Your task to perform on an android device: empty trash in the gmail app Image 0: 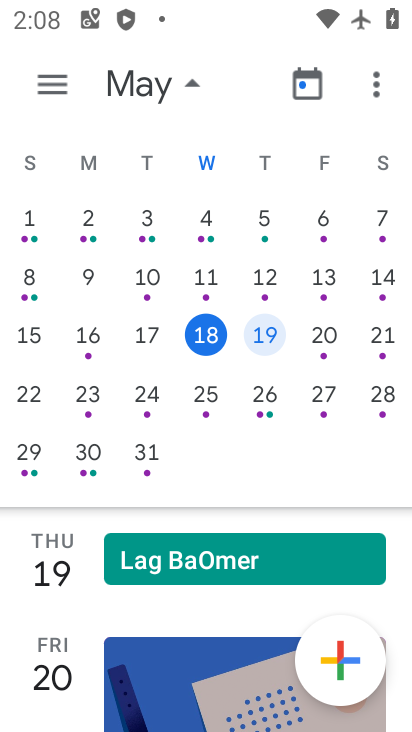
Step 0: press home button
Your task to perform on an android device: empty trash in the gmail app Image 1: 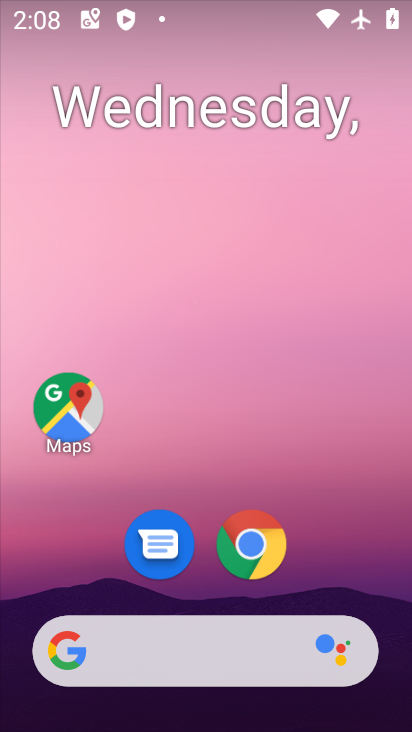
Step 1: drag from (370, 566) to (349, 219)
Your task to perform on an android device: empty trash in the gmail app Image 2: 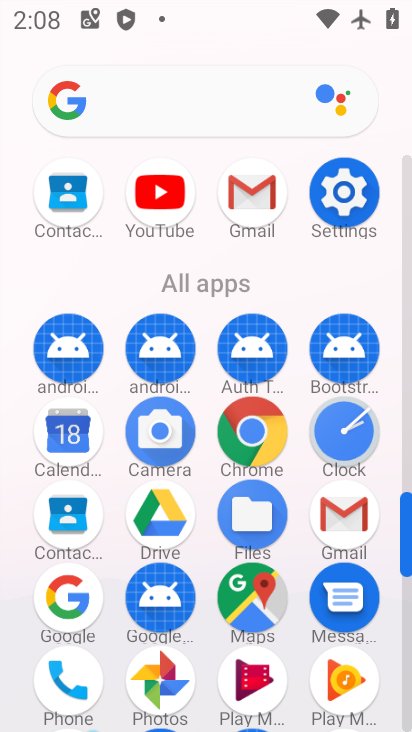
Step 2: click (242, 177)
Your task to perform on an android device: empty trash in the gmail app Image 3: 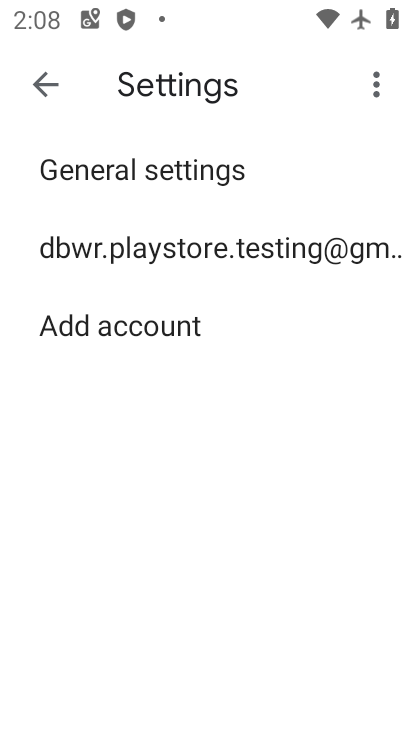
Step 3: click (32, 97)
Your task to perform on an android device: empty trash in the gmail app Image 4: 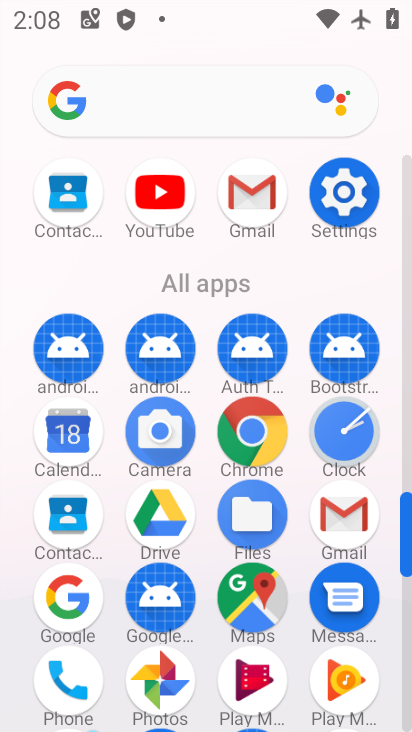
Step 4: click (240, 216)
Your task to perform on an android device: empty trash in the gmail app Image 5: 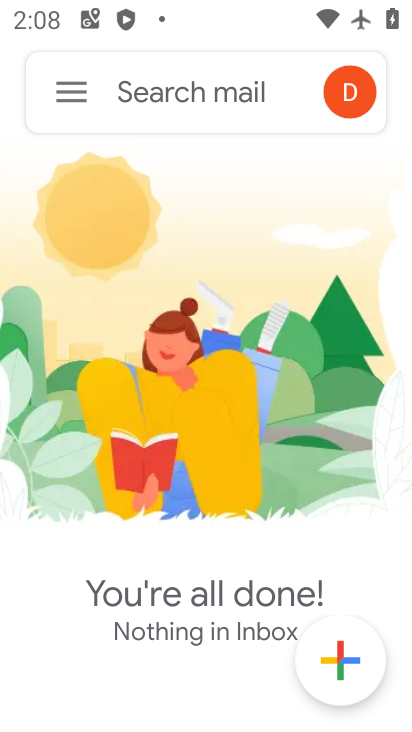
Step 5: click (65, 116)
Your task to perform on an android device: empty trash in the gmail app Image 6: 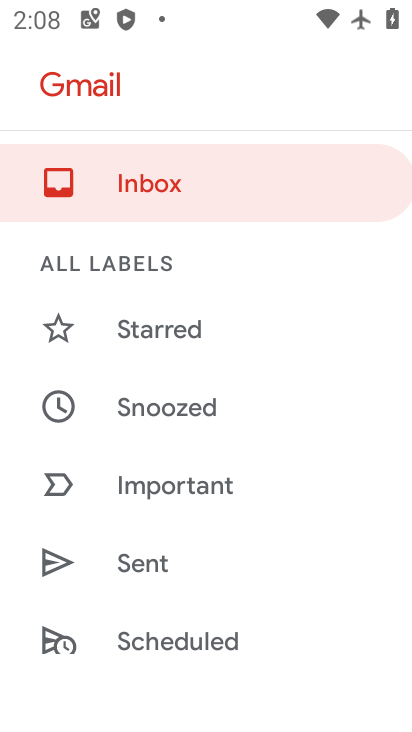
Step 6: drag from (84, 557) to (93, 373)
Your task to perform on an android device: empty trash in the gmail app Image 7: 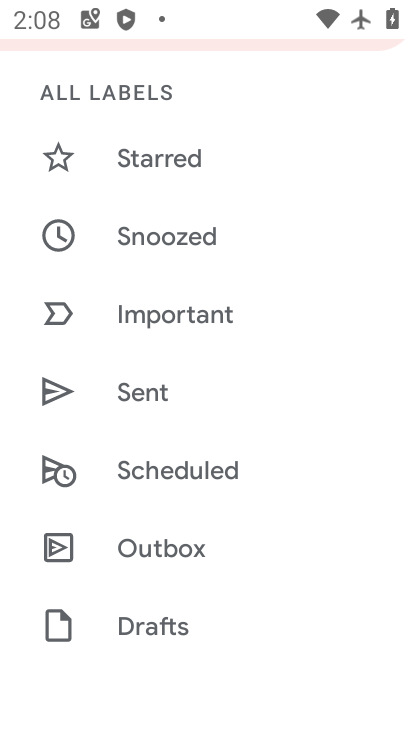
Step 7: drag from (119, 669) to (158, 403)
Your task to perform on an android device: empty trash in the gmail app Image 8: 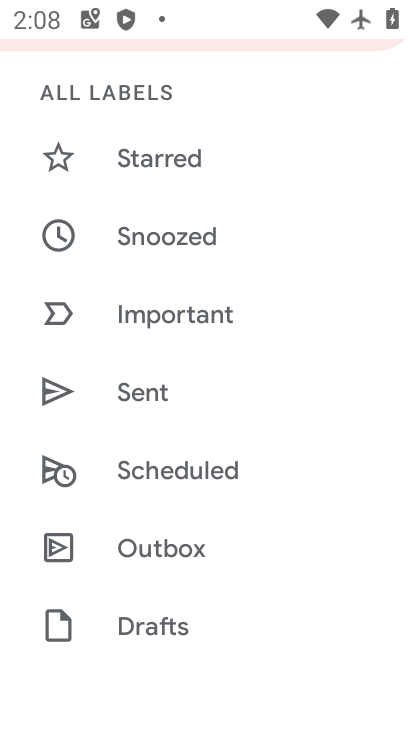
Step 8: drag from (143, 607) to (170, 394)
Your task to perform on an android device: empty trash in the gmail app Image 9: 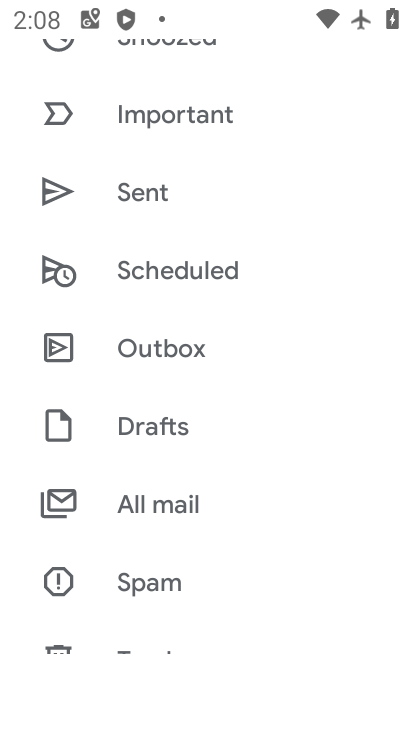
Step 9: drag from (143, 606) to (171, 274)
Your task to perform on an android device: empty trash in the gmail app Image 10: 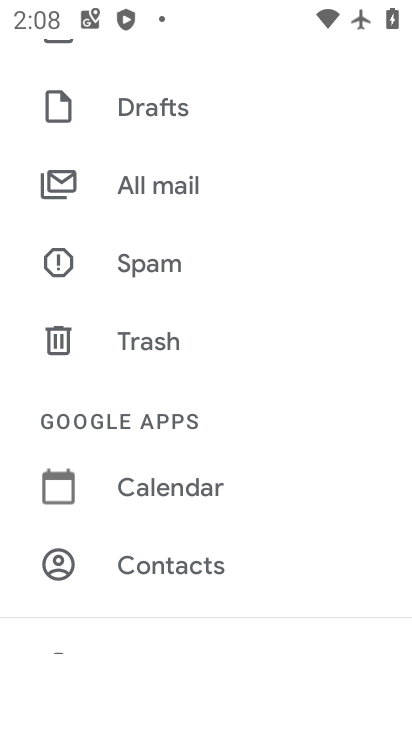
Step 10: drag from (170, 585) to (213, 303)
Your task to perform on an android device: empty trash in the gmail app Image 11: 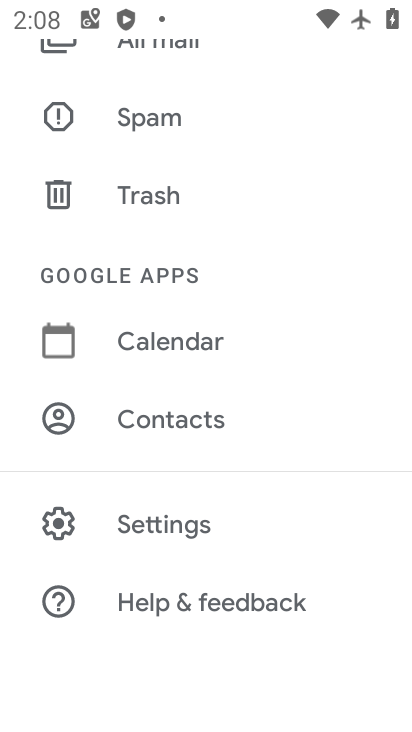
Step 11: click (195, 511)
Your task to perform on an android device: empty trash in the gmail app Image 12: 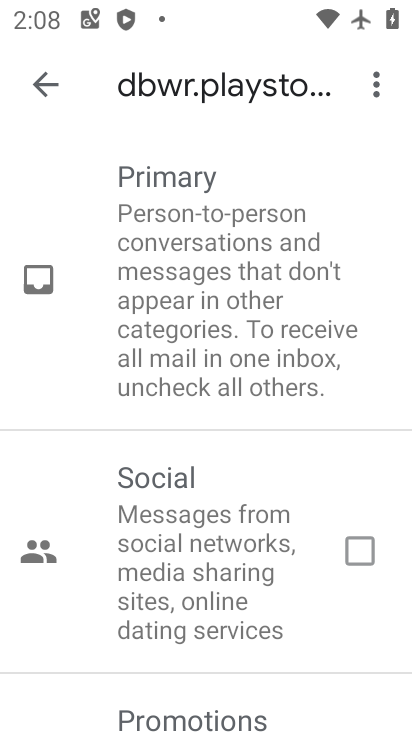
Step 12: click (58, 91)
Your task to perform on an android device: empty trash in the gmail app Image 13: 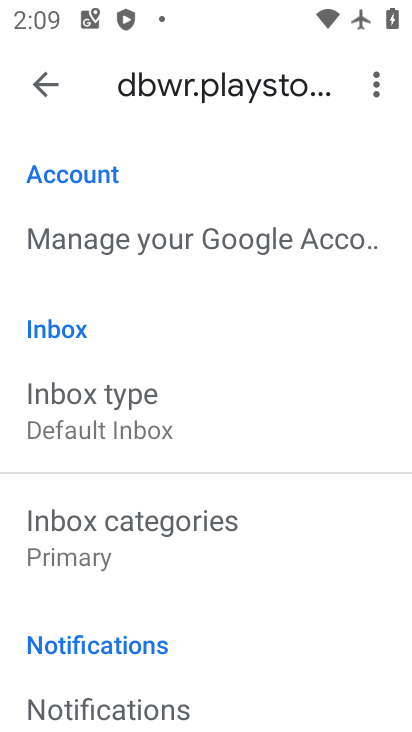
Step 13: click (58, 91)
Your task to perform on an android device: empty trash in the gmail app Image 14: 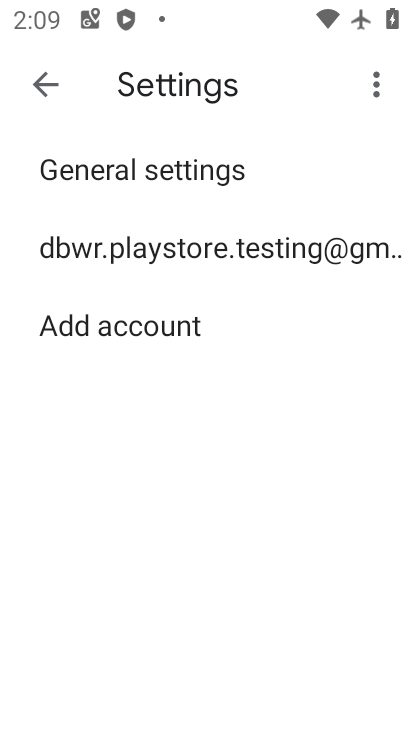
Step 14: click (29, 72)
Your task to perform on an android device: empty trash in the gmail app Image 15: 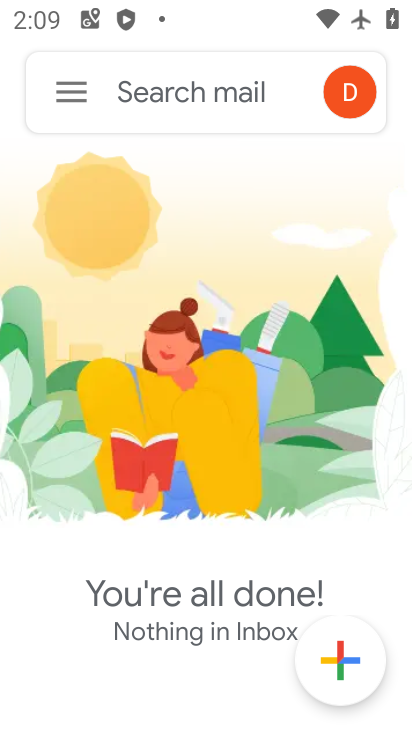
Step 15: click (60, 86)
Your task to perform on an android device: empty trash in the gmail app Image 16: 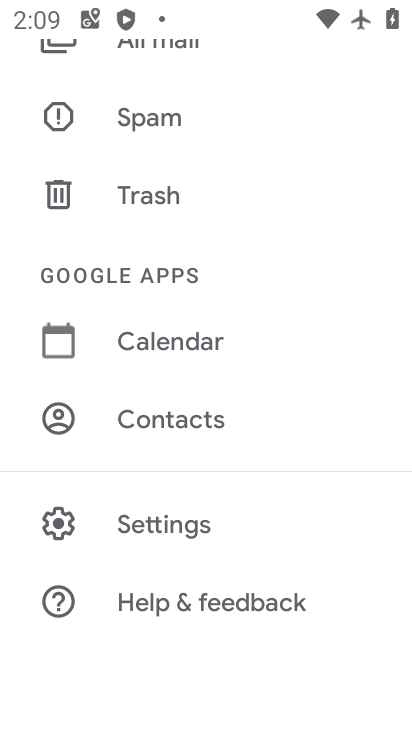
Step 16: click (119, 201)
Your task to perform on an android device: empty trash in the gmail app Image 17: 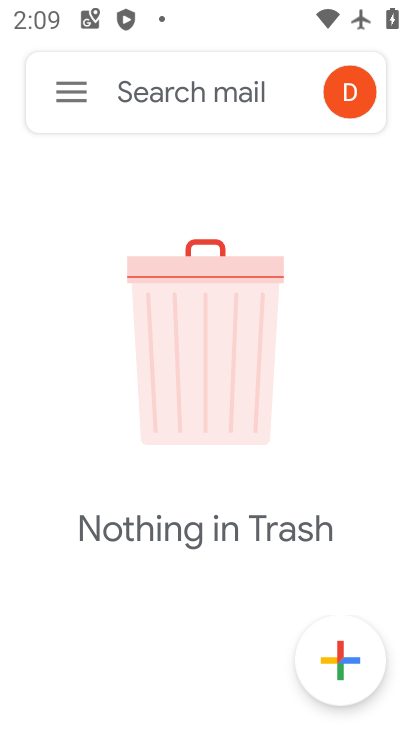
Step 17: task complete